Your task to perform on an android device: toggle airplane mode Image 0: 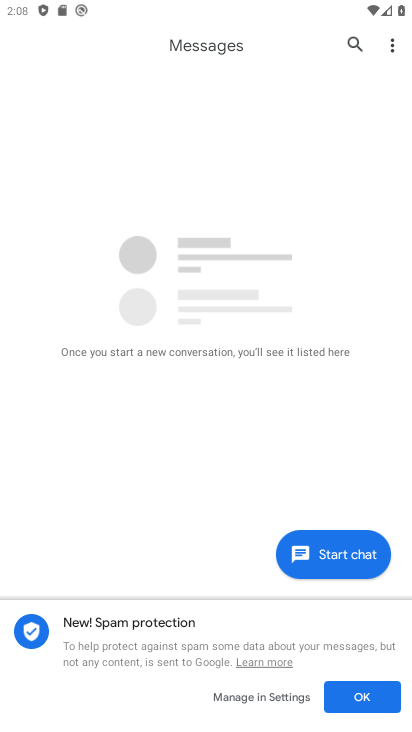
Step 0: press home button
Your task to perform on an android device: toggle airplane mode Image 1: 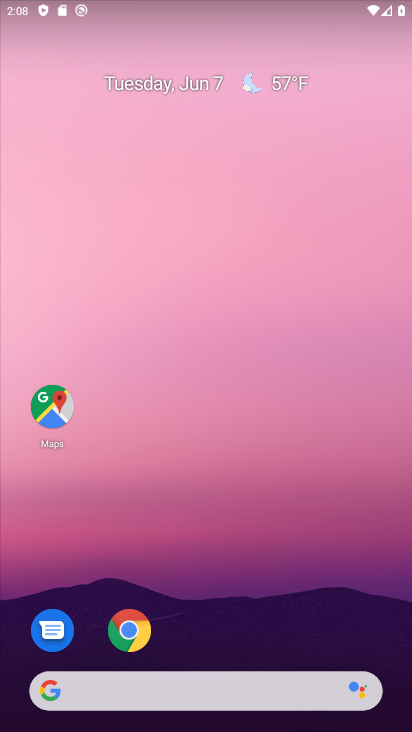
Step 1: drag from (391, 710) to (347, 2)
Your task to perform on an android device: toggle airplane mode Image 2: 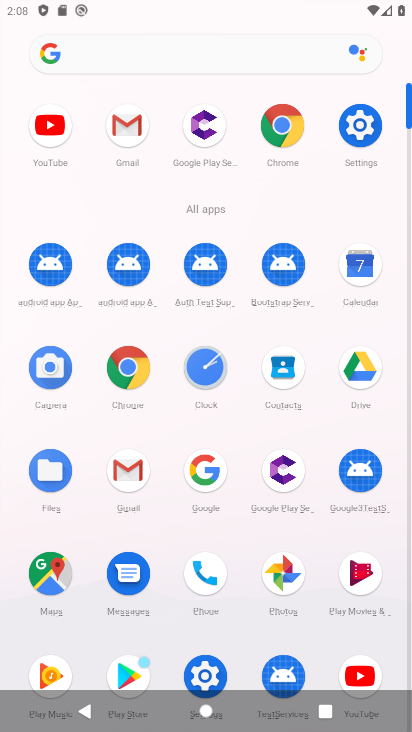
Step 2: click (356, 105)
Your task to perform on an android device: toggle airplane mode Image 3: 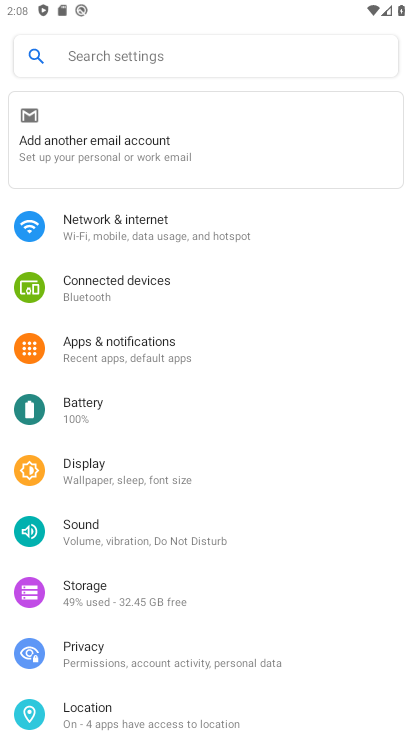
Step 3: click (138, 215)
Your task to perform on an android device: toggle airplane mode Image 4: 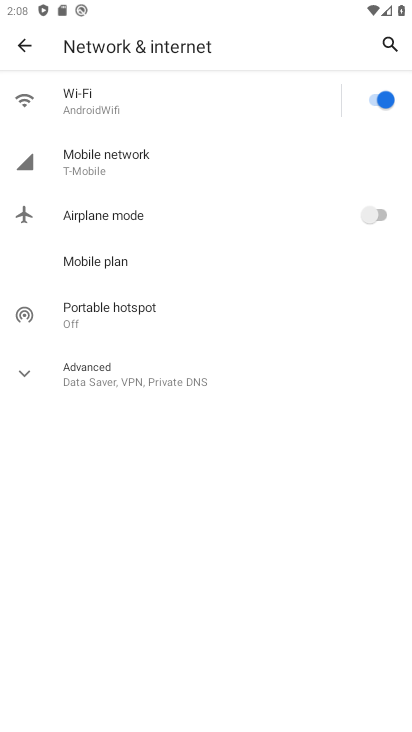
Step 4: click (369, 209)
Your task to perform on an android device: toggle airplane mode Image 5: 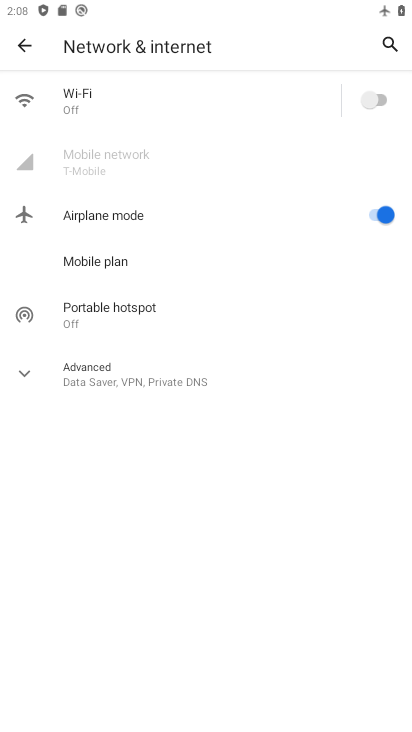
Step 5: task complete